Your task to perform on an android device: Open battery settings Image 0: 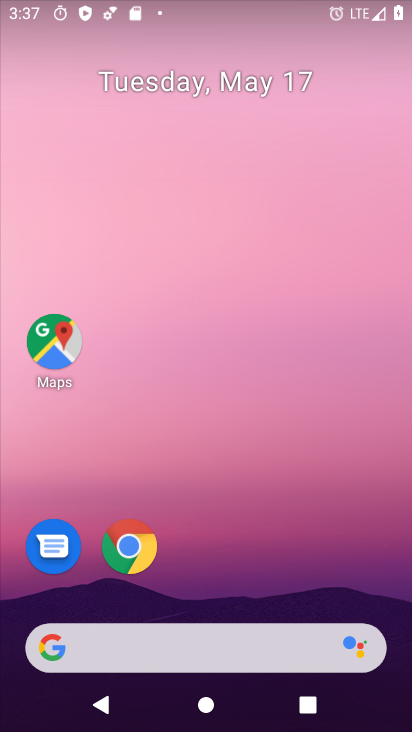
Step 0: press home button
Your task to perform on an android device: Open battery settings Image 1: 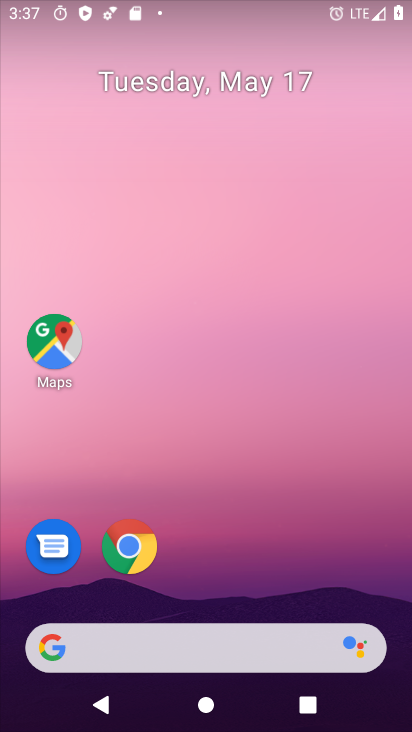
Step 1: drag from (356, 578) to (314, 7)
Your task to perform on an android device: Open battery settings Image 2: 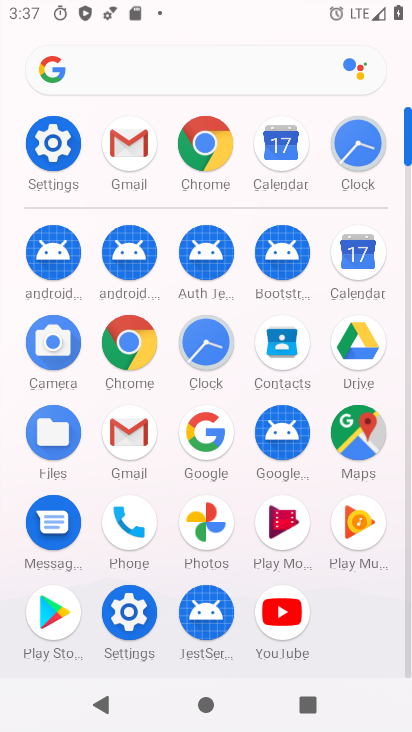
Step 2: click (51, 147)
Your task to perform on an android device: Open battery settings Image 3: 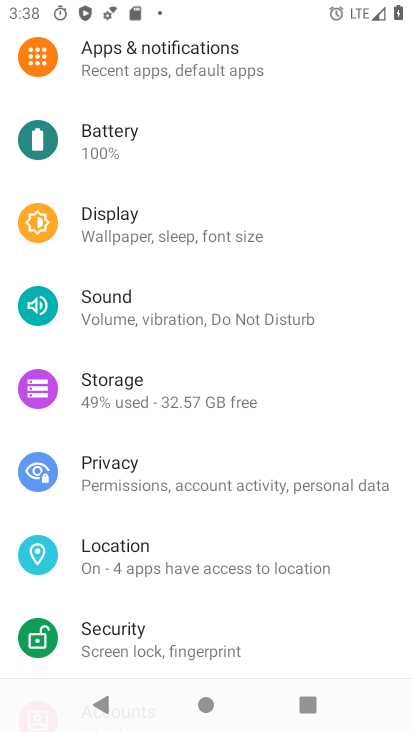
Step 3: drag from (284, 185) to (310, 495)
Your task to perform on an android device: Open battery settings Image 4: 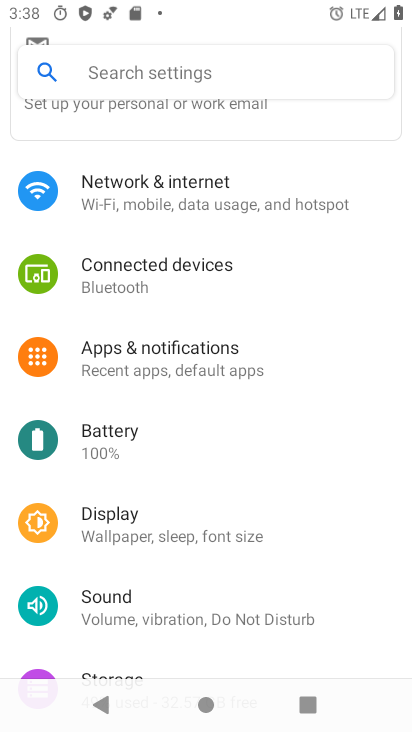
Step 4: click (87, 453)
Your task to perform on an android device: Open battery settings Image 5: 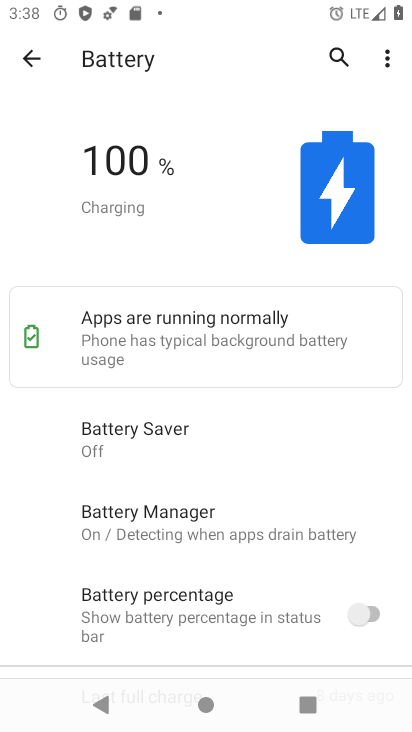
Step 5: task complete